Your task to perform on an android device: Check the best rated table lamp on Crate and Barrel Image 0: 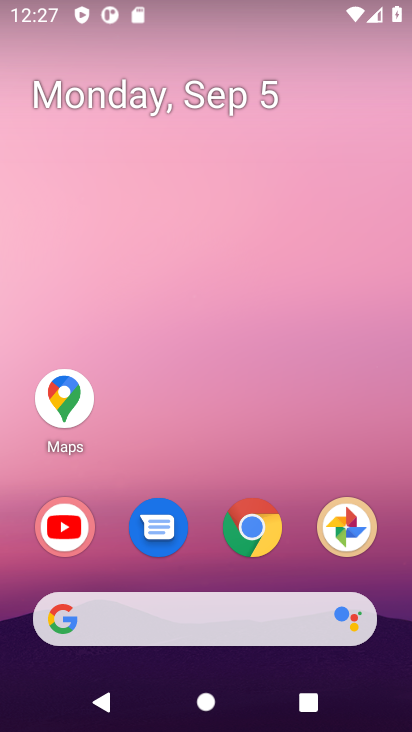
Step 0: click (253, 523)
Your task to perform on an android device: Check the best rated table lamp on Crate and Barrel Image 1: 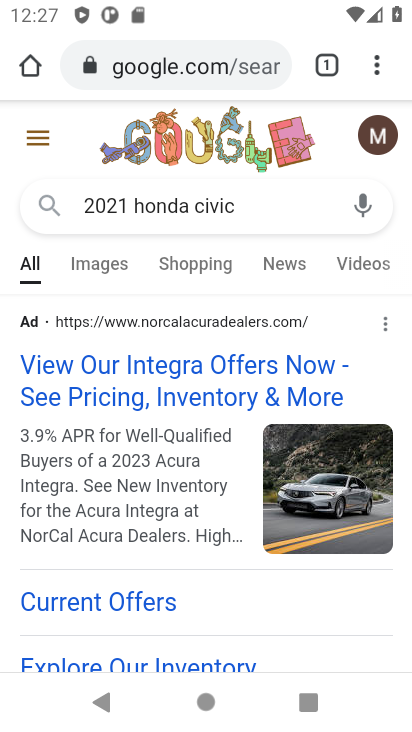
Step 1: click (194, 69)
Your task to perform on an android device: Check the best rated table lamp on Crate and Barrel Image 2: 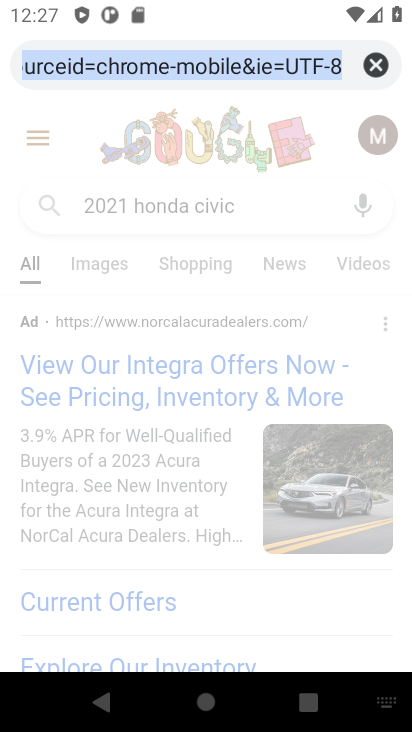
Step 2: type "crate and barrels"
Your task to perform on an android device: Check the best rated table lamp on Crate and Barrel Image 3: 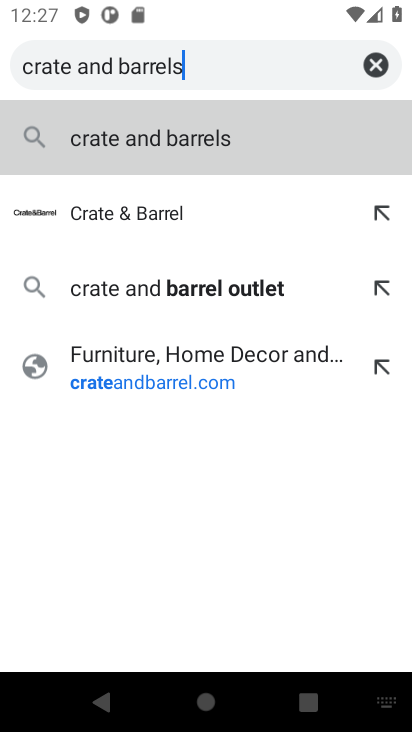
Step 3: click (138, 141)
Your task to perform on an android device: Check the best rated table lamp on Crate and Barrel Image 4: 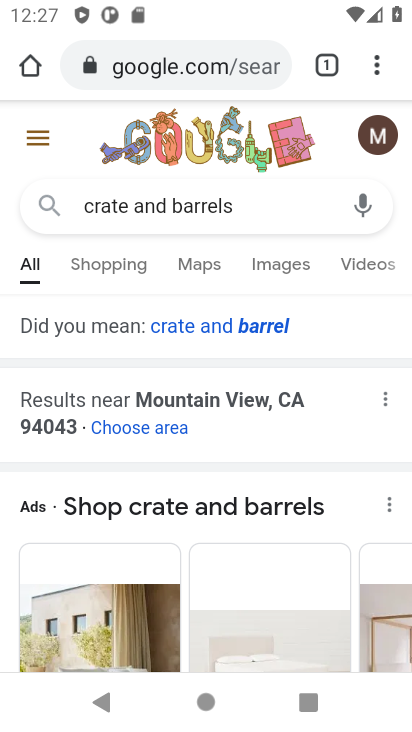
Step 4: drag from (85, 499) to (116, 294)
Your task to perform on an android device: Check the best rated table lamp on Crate and Barrel Image 5: 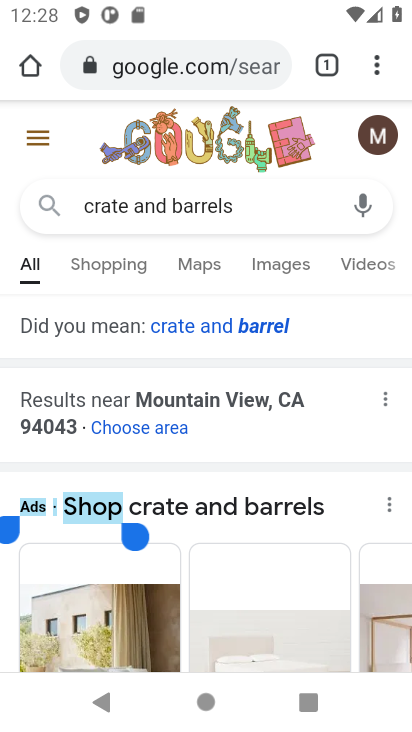
Step 5: click (168, 313)
Your task to perform on an android device: Check the best rated table lamp on Crate and Barrel Image 6: 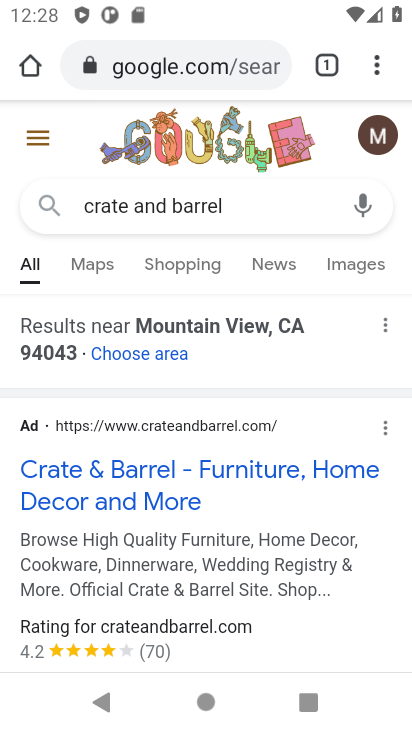
Step 6: click (166, 486)
Your task to perform on an android device: Check the best rated table lamp on Crate and Barrel Image 7: 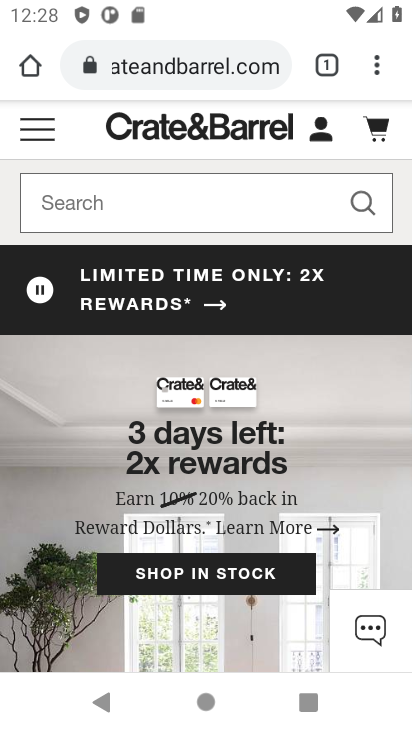
Step 7: drag from (180, 616) to (202, 429)
Your task to perform on an android device: Check the best rated table lamp on Crate and Barrel Image 8: 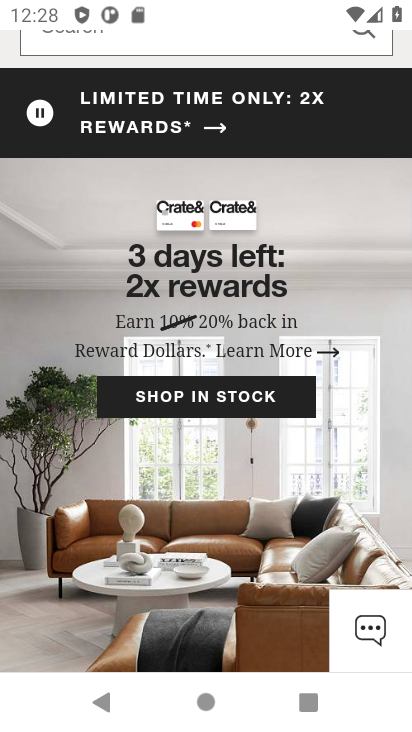
Step 8: drag from (194, 411) to (233, 663)
Your task to perform on an android device: Check the best rated table lamp on Crate and Barrel Image 9: 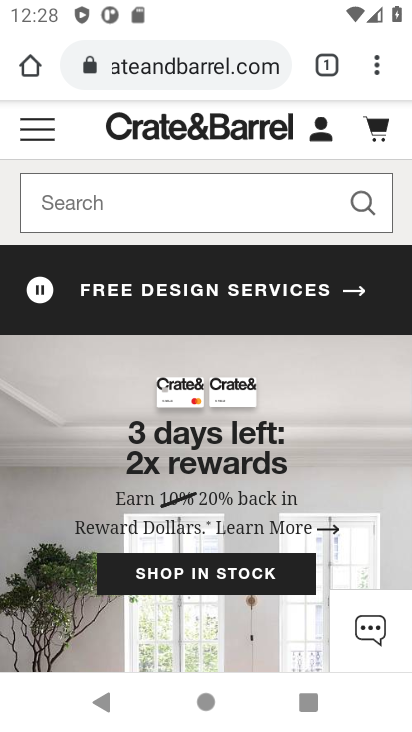
Step 9: click (174, 198)
Your task to perform on an android device: Check the best rated table lamp on Crate and Barrel Image 10: 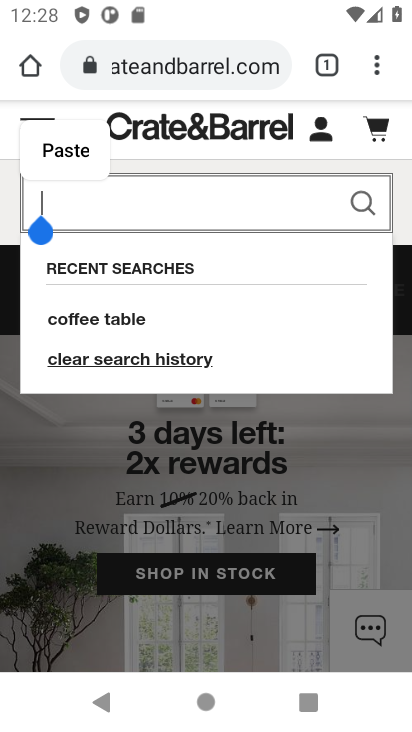
Step 10: type "best rated table ramp"
Your task to perform on an android device: Check the best rated table lamp on Crate and Barrel Image 11: 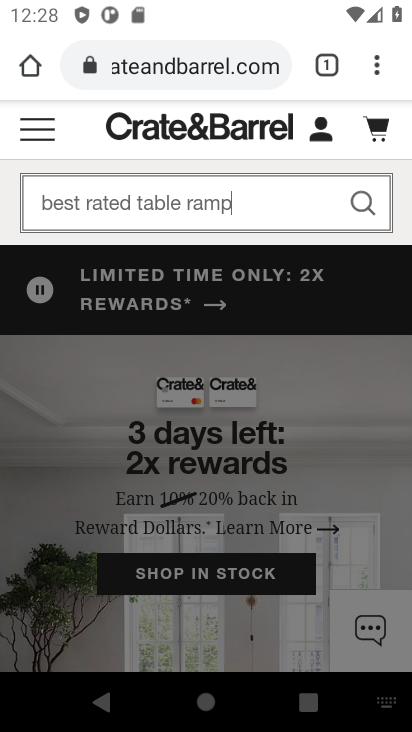
Step 11: click (361, 202)
Your task to perform on an android device: Check the best rated table lamp on Crate and Barrel Image 12: 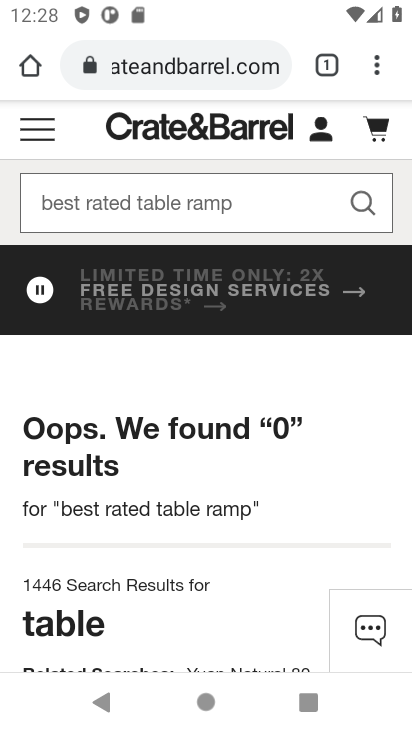
Step 12: task complete